Your task to perform on an android device: turn on bluetooth scan Image 0: 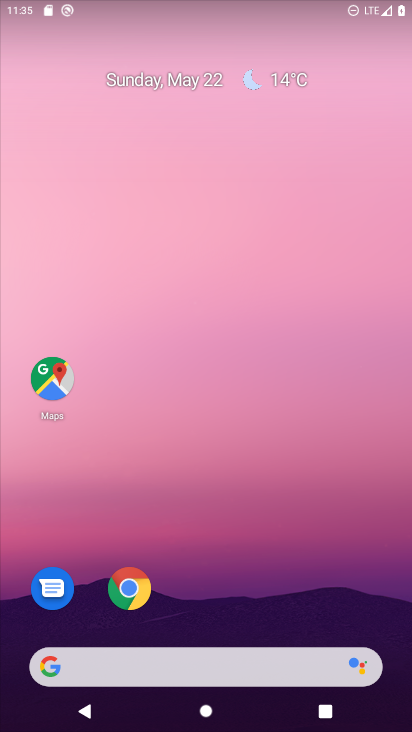
Step 0: drag from (217, 631) to (217, 312)
Your task to perform on an android device: turn on bluetooth scan Image 1: 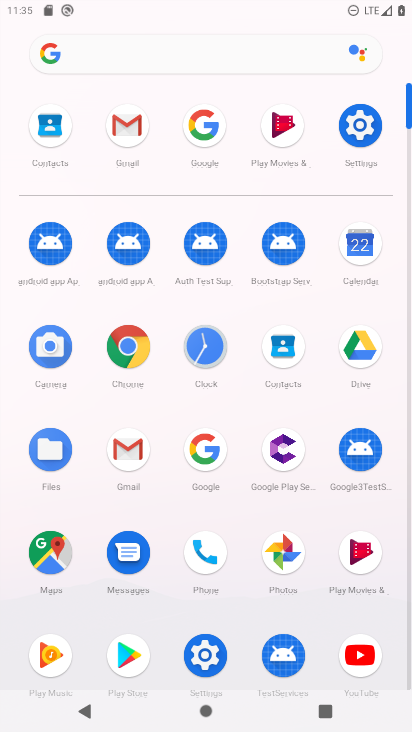
Step 1: click (351, 129)
Your task to perform on an android device: turn on bluetooth scan Image 2: 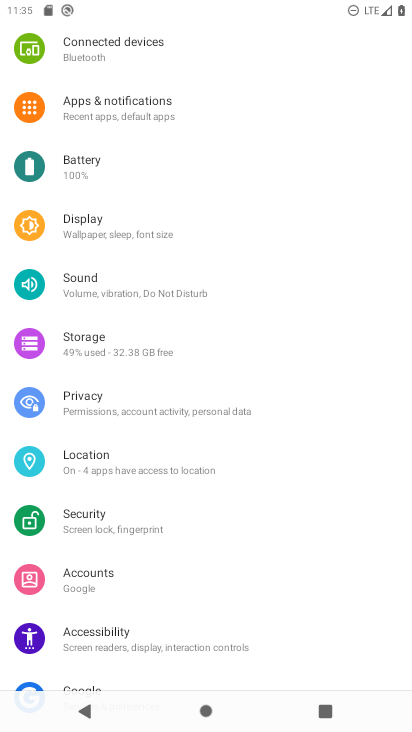
Step 2: click (156, 453)
Your task to perform on an android device: turn on bluetooth scan Image 3: 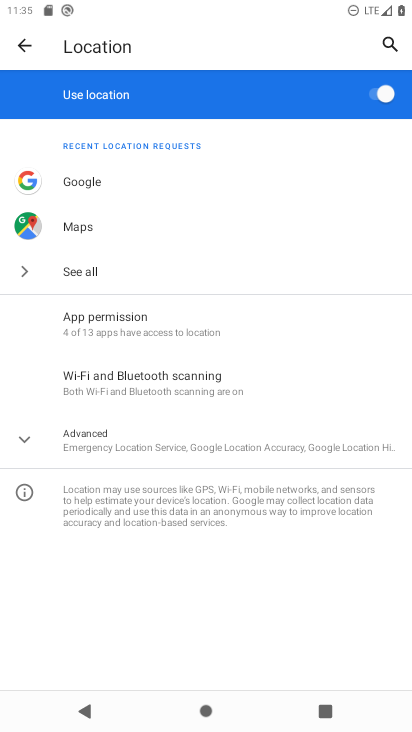
Step 3: click (194, 393)
Your task to perform on an android device: turn on bluetooth scan Image 4: 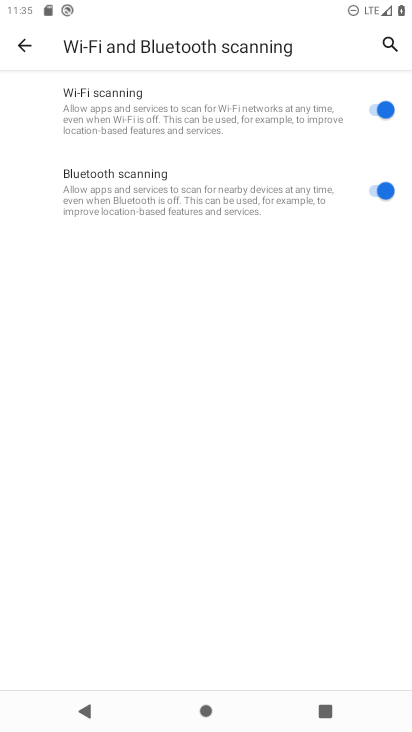
Step 4: task complete